Your task to perform on an android device: Open accessibility settings Image 0: 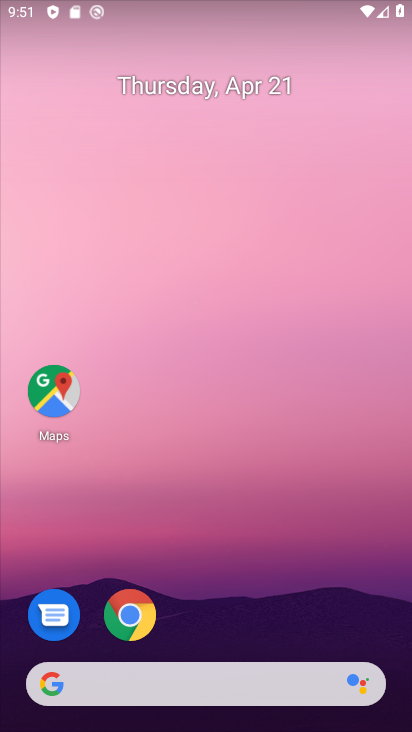
Step 0: drag from (320, 597) to (257, 88)
Your task to perform on an android device: Open accessibility settings Image 1: 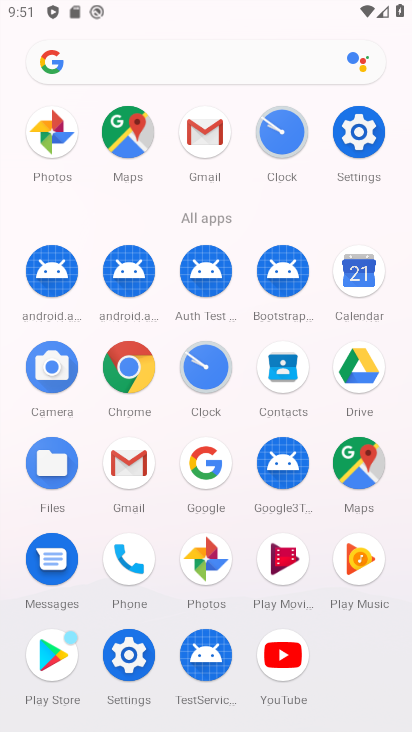
Step 1: click (137, 661)
Your task to perform on an android device: Open accessibility settings Image 2: 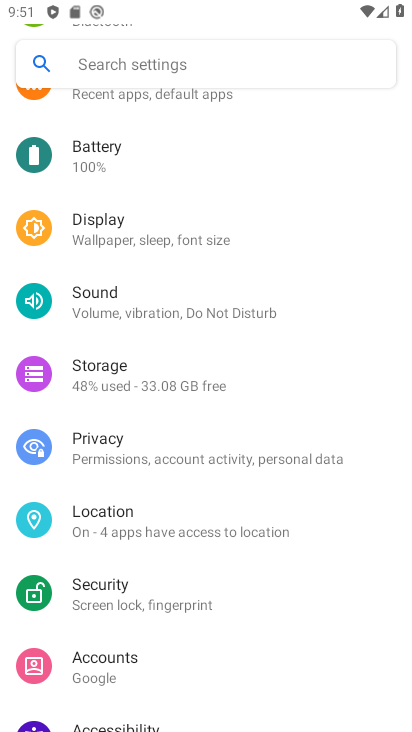
Step 2: drag from (226, 588) to (212, 339)
Your task to perform on an android device: Open accessibility settings Image 3: 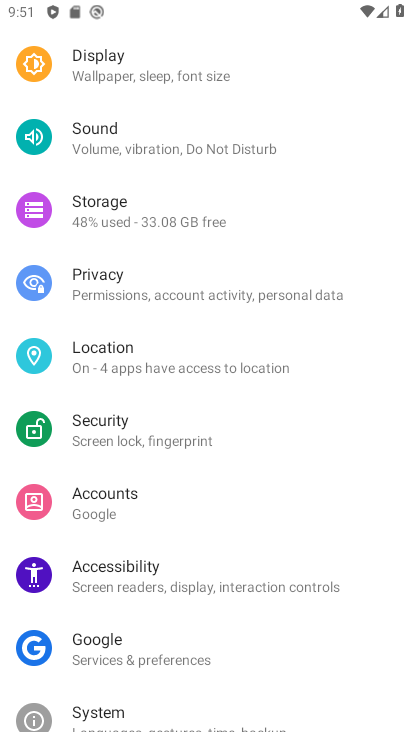
Step 3: drag from (227, 623) to (212, 244)
Your task to perform on an android device: Open accessibility settings Image 4: 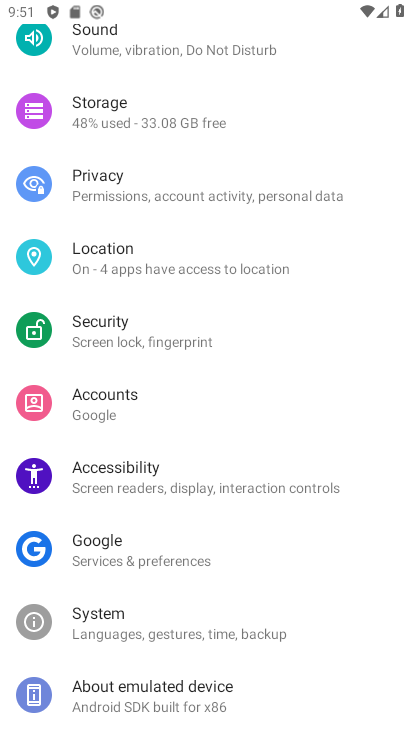
Step 4: click (132, 475)
Your task to perform on an android device: Open accessibility settings Image 5: 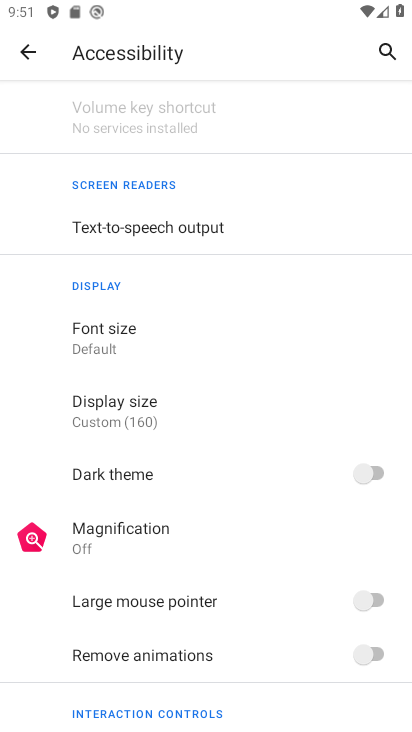
Step 5: task complete